Your task to perform on an android device: Open the stopwatch Image 0: 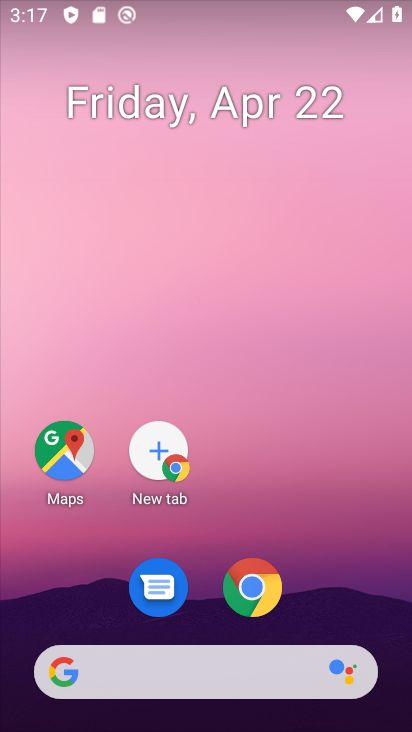
Step 0: drag from (202, 626) to (291, 45)
Your task to perform on an android device: Open the stopwatch Image 1: 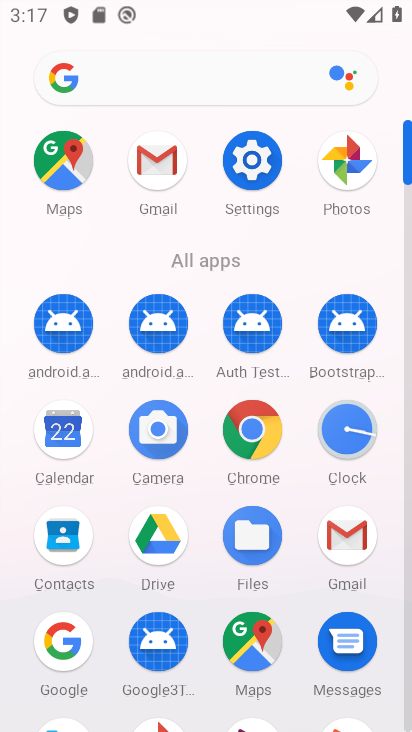
Step 1: click (342, 436)
Your task to perform on an android device: Open the stopwatch Image 2: 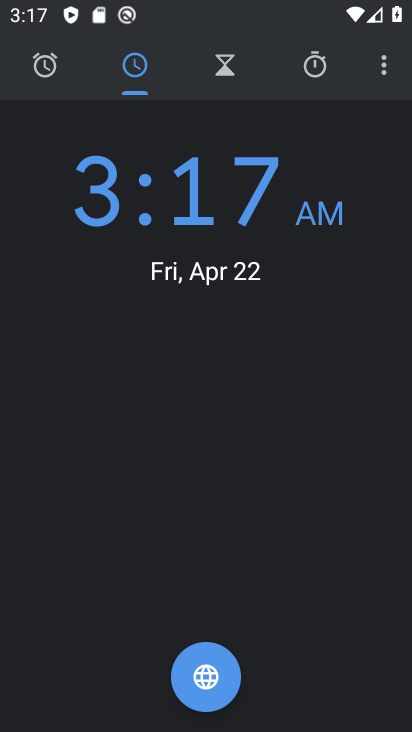
Step 2: click (318, 80)
Your task to perform on an android device: Open the stopwatch Image 3: 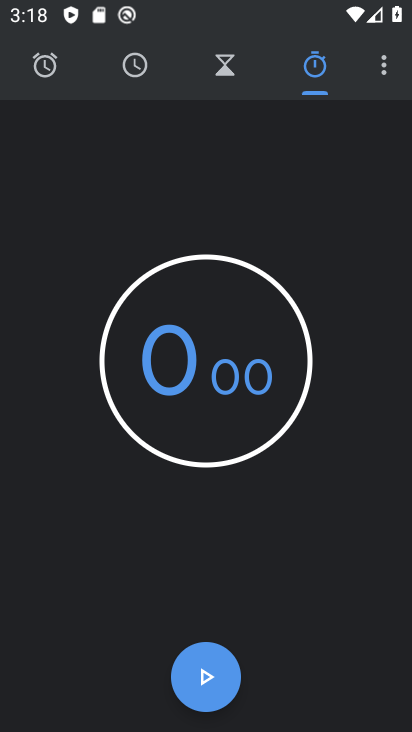
Step 3: task complete